Your task to perform on an android device: Check the news Image 0: 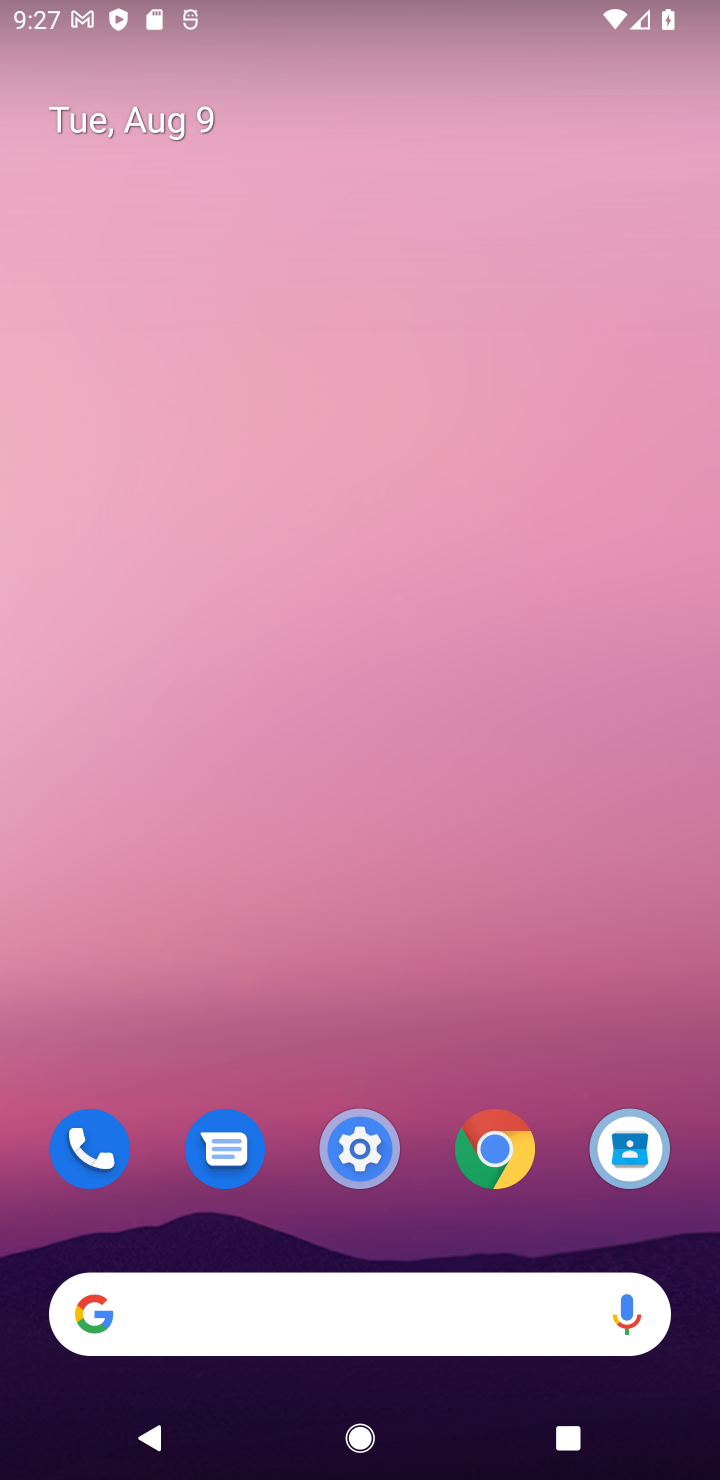
Step 0: click (339, 1312)
Your task to perform on an android device: Check the news Image 1: 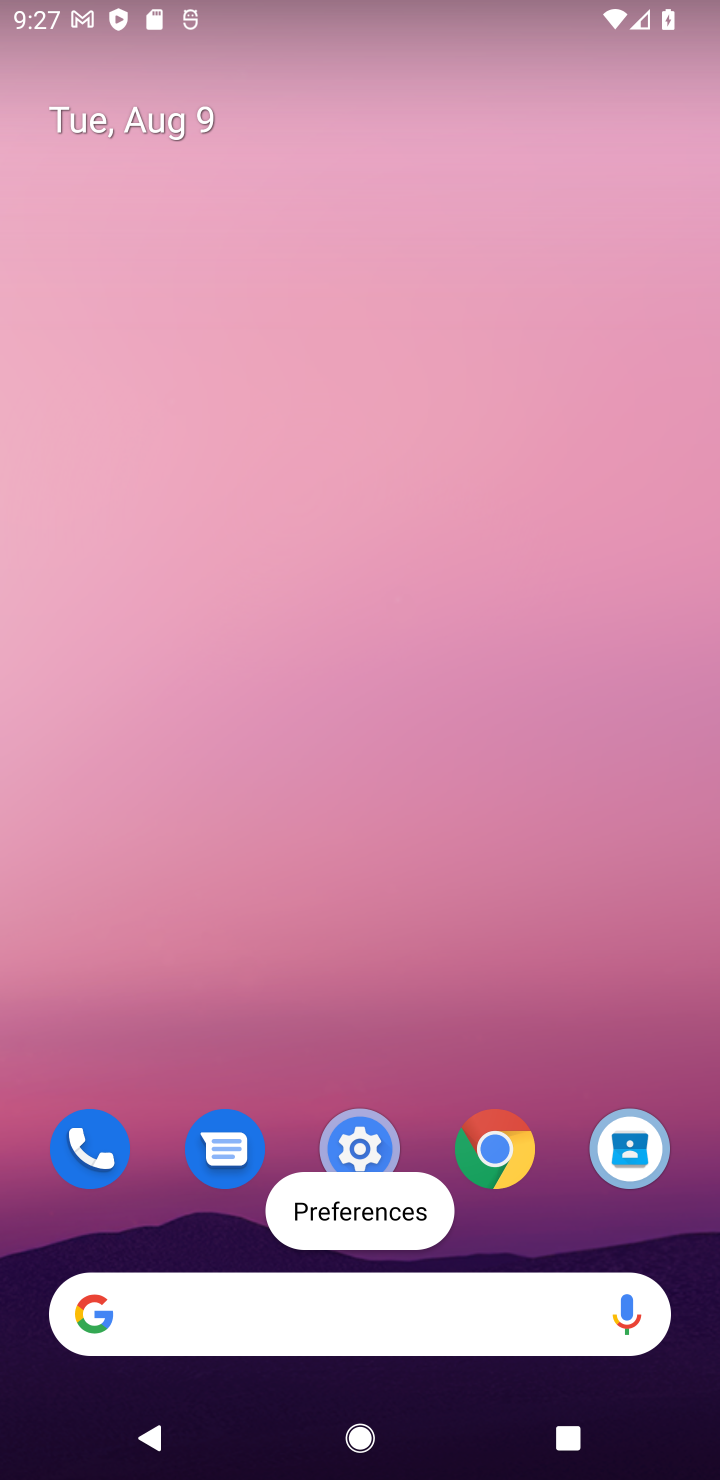
Step 1: click (304, 1304)
Your task to perform on an android device: Check the news Image 2: 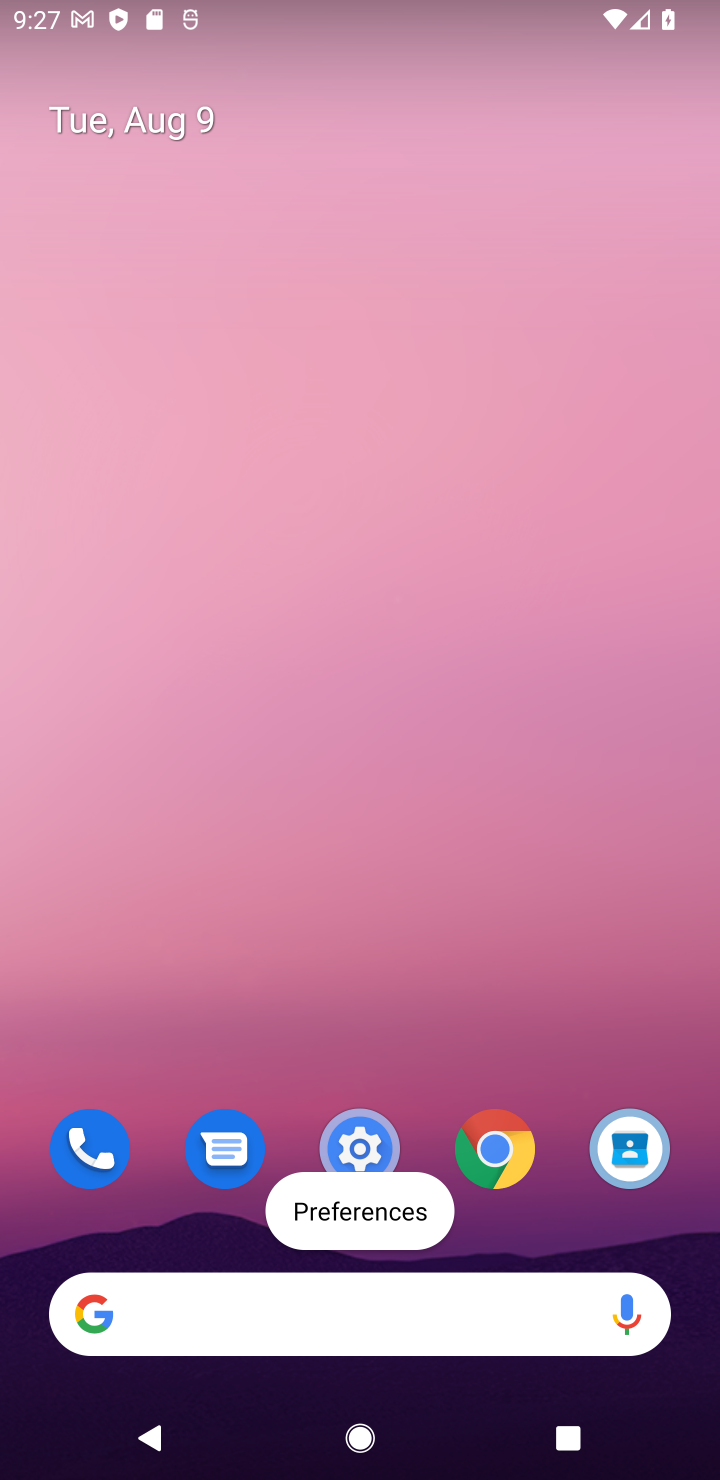
Step 2: click (326, 1313)
Your task to perform on an android device: Check the news Image 3: 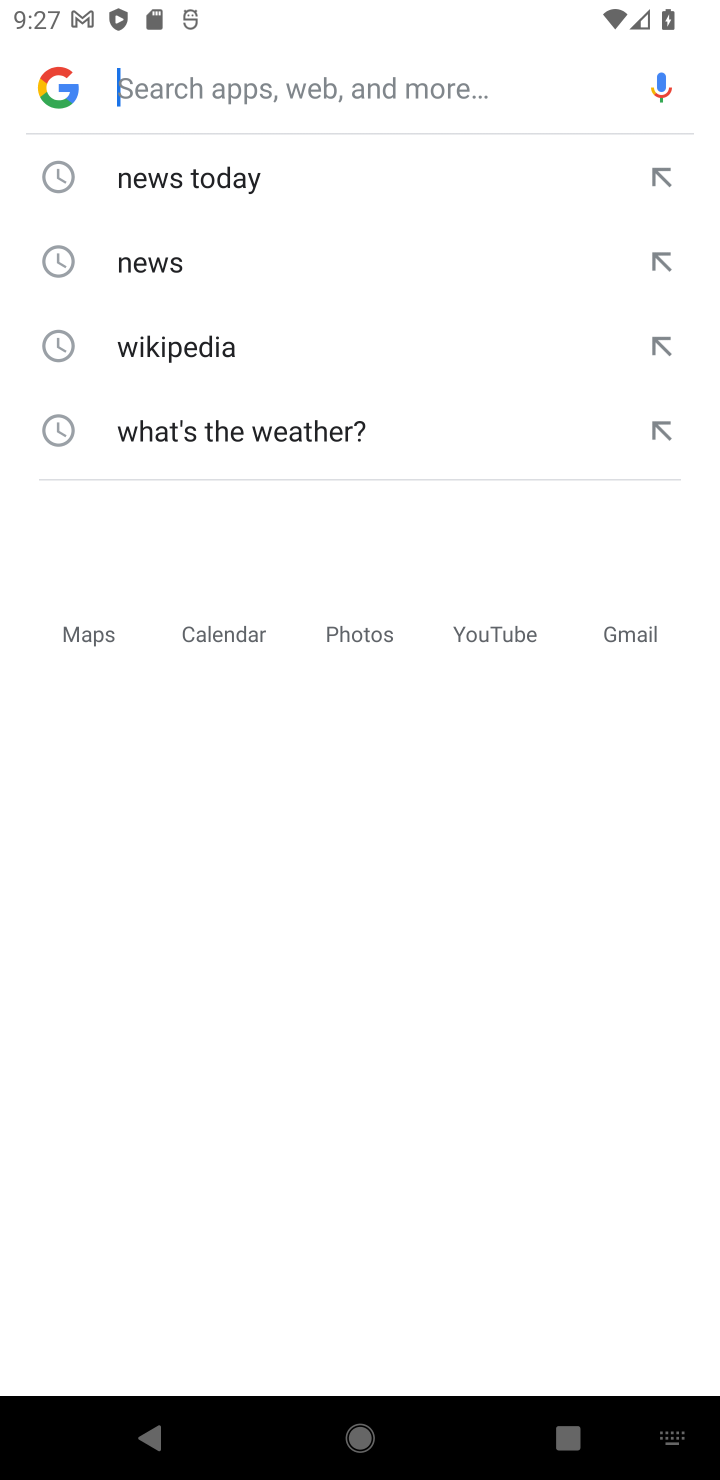
Step 3: click (177, 270)
Your task to perform on an android device: Check the news Image 4: 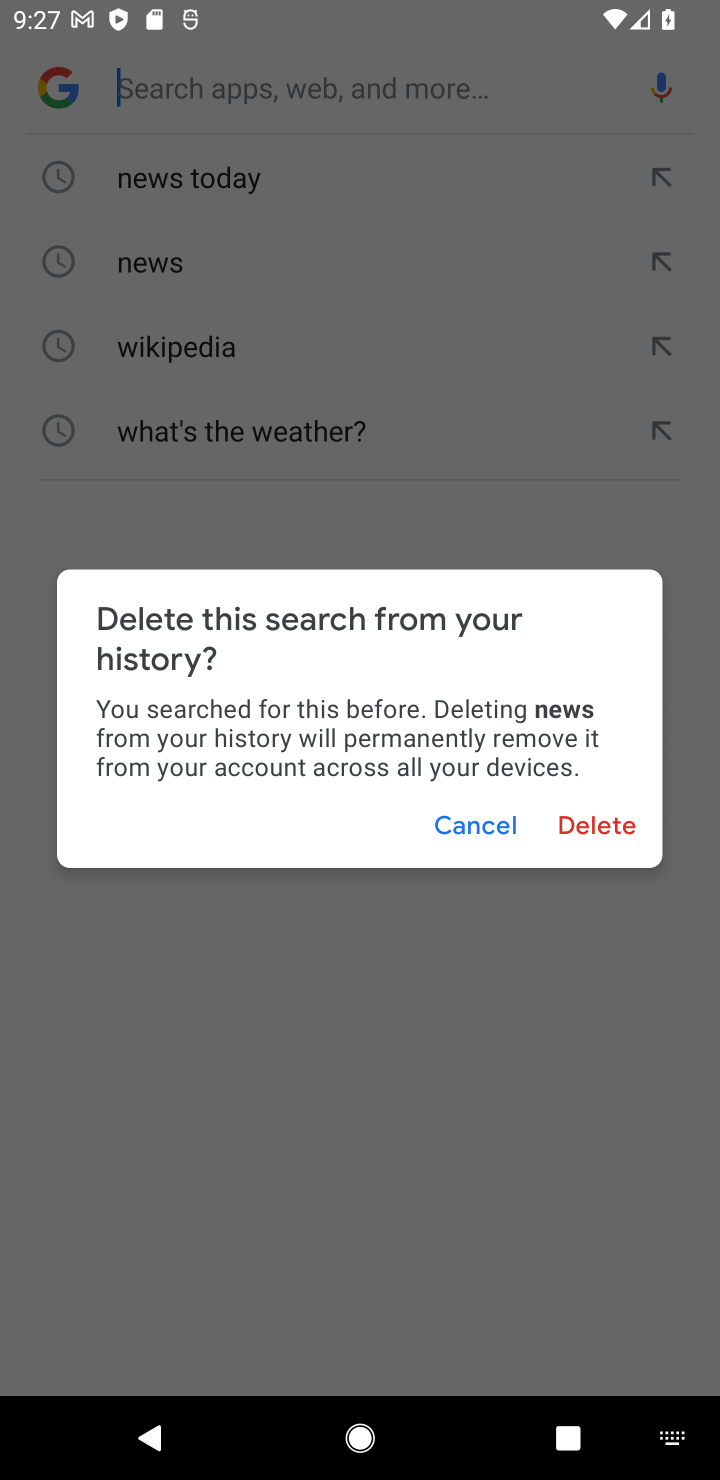
Step 4: click (478, 805)
Your task to perform on an android device: Check the news Image 5: 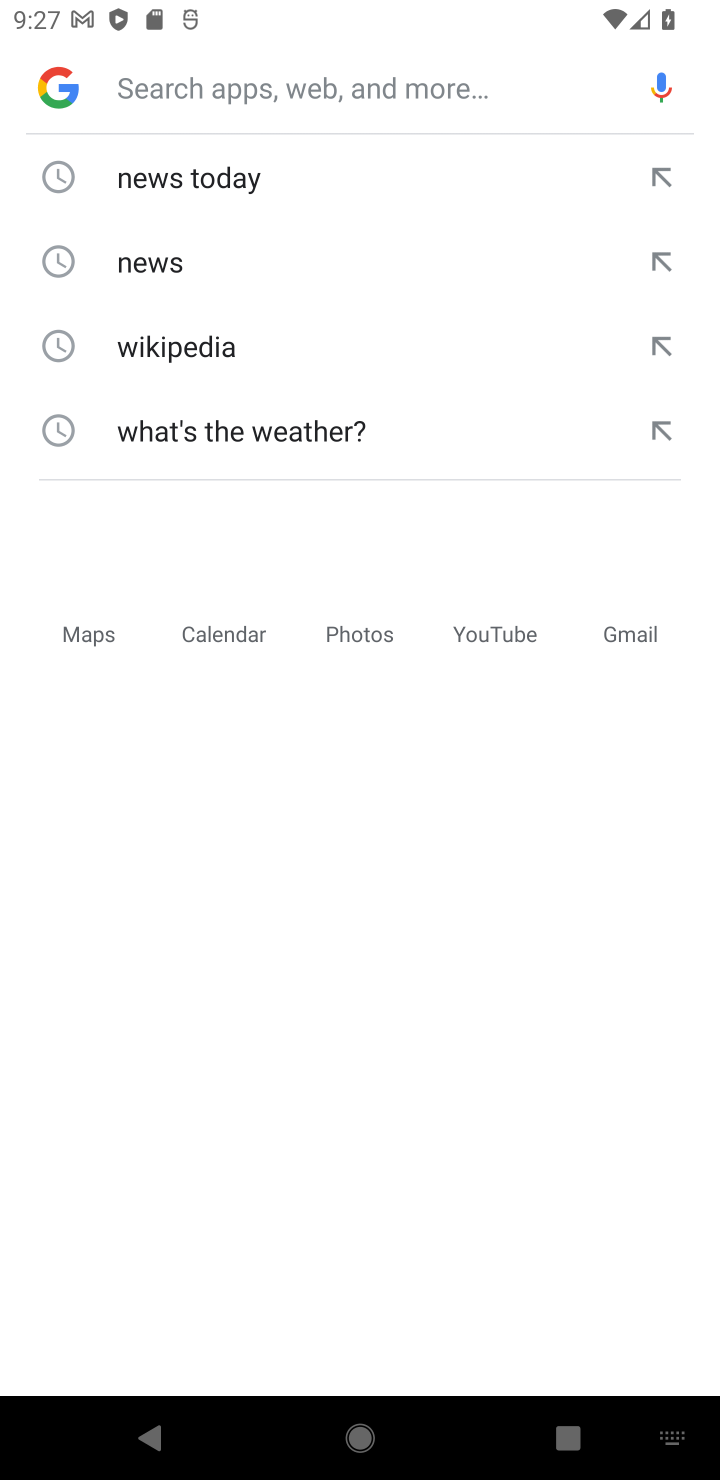
Step 5: click (138, 272)
Your task to perform on an android device: Check the news Image 6: 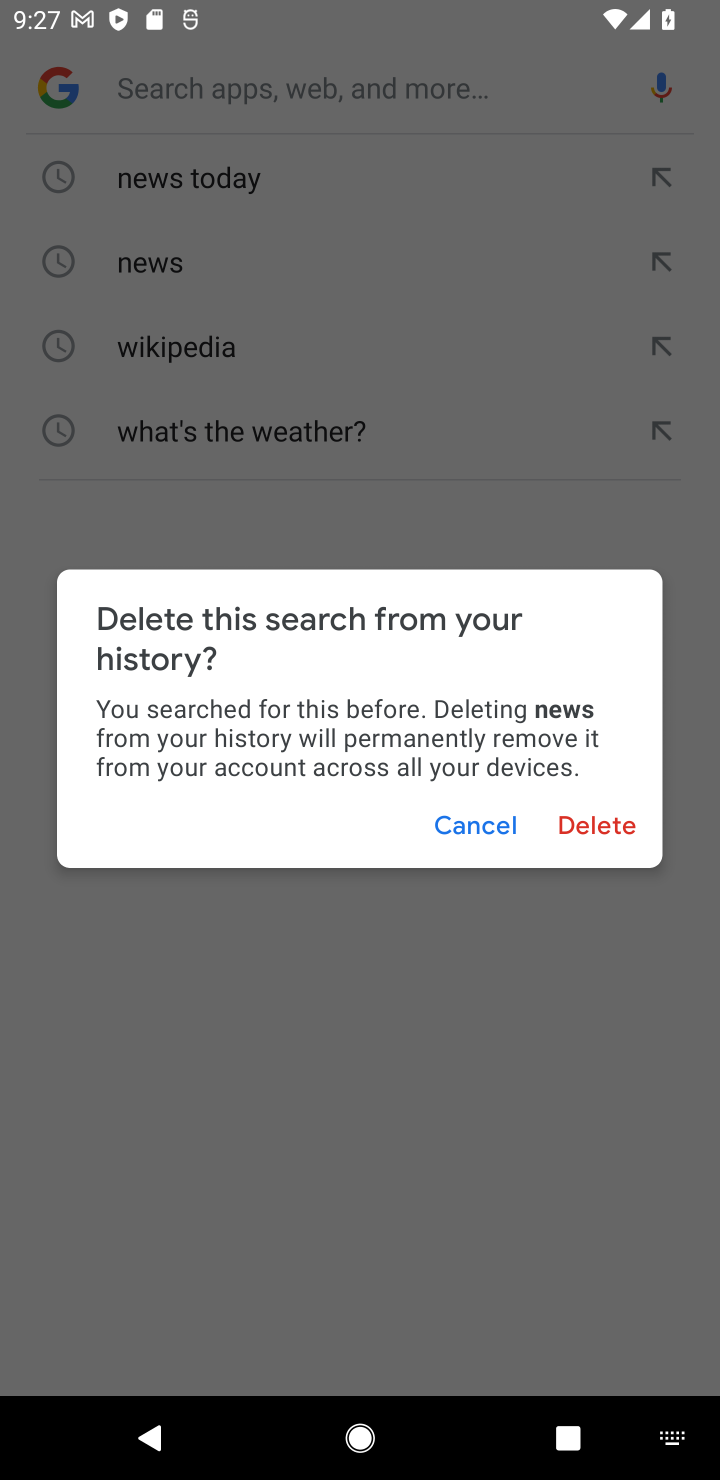
Step 6: click (483, 822)
Your task to perform on an android device: Check the news Image 7: 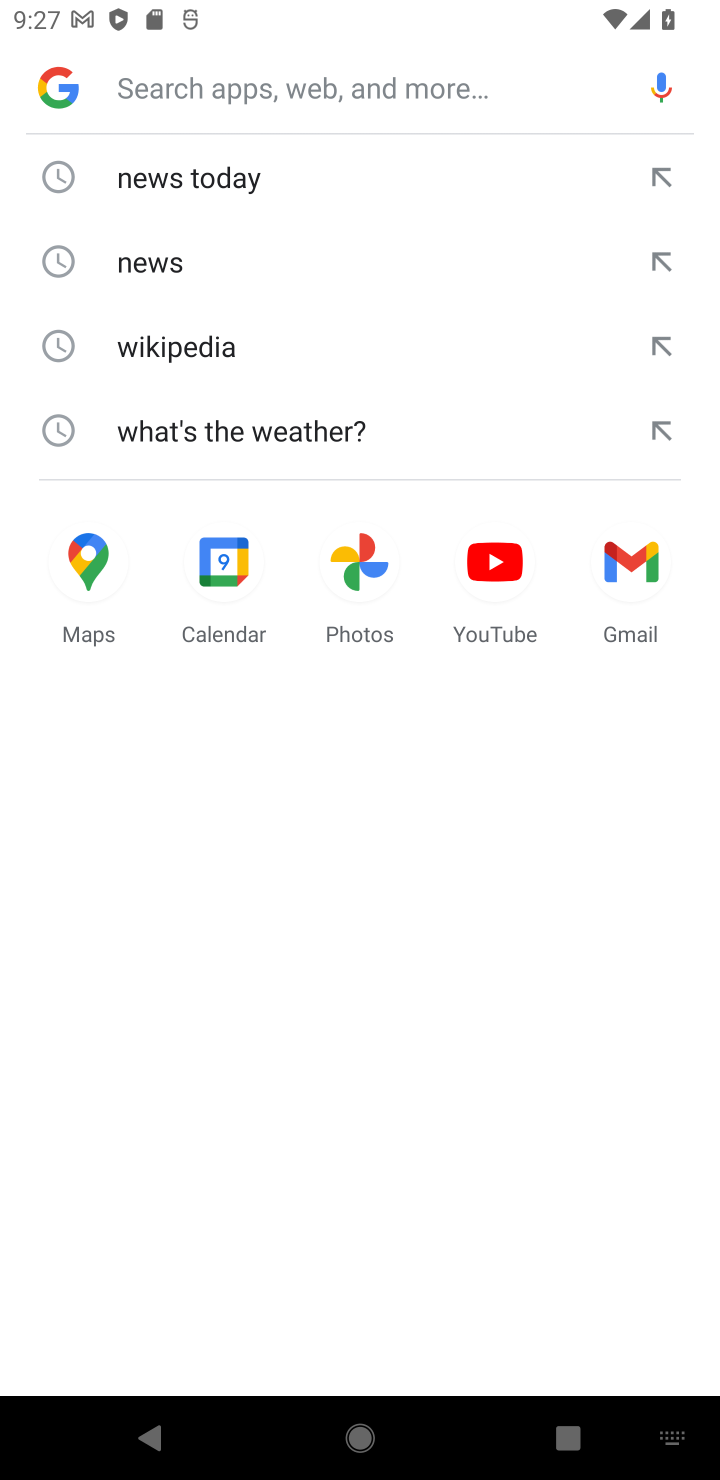
Step 7: click (233, 264)
Your task to perform on an android device: Check the news Image 8: 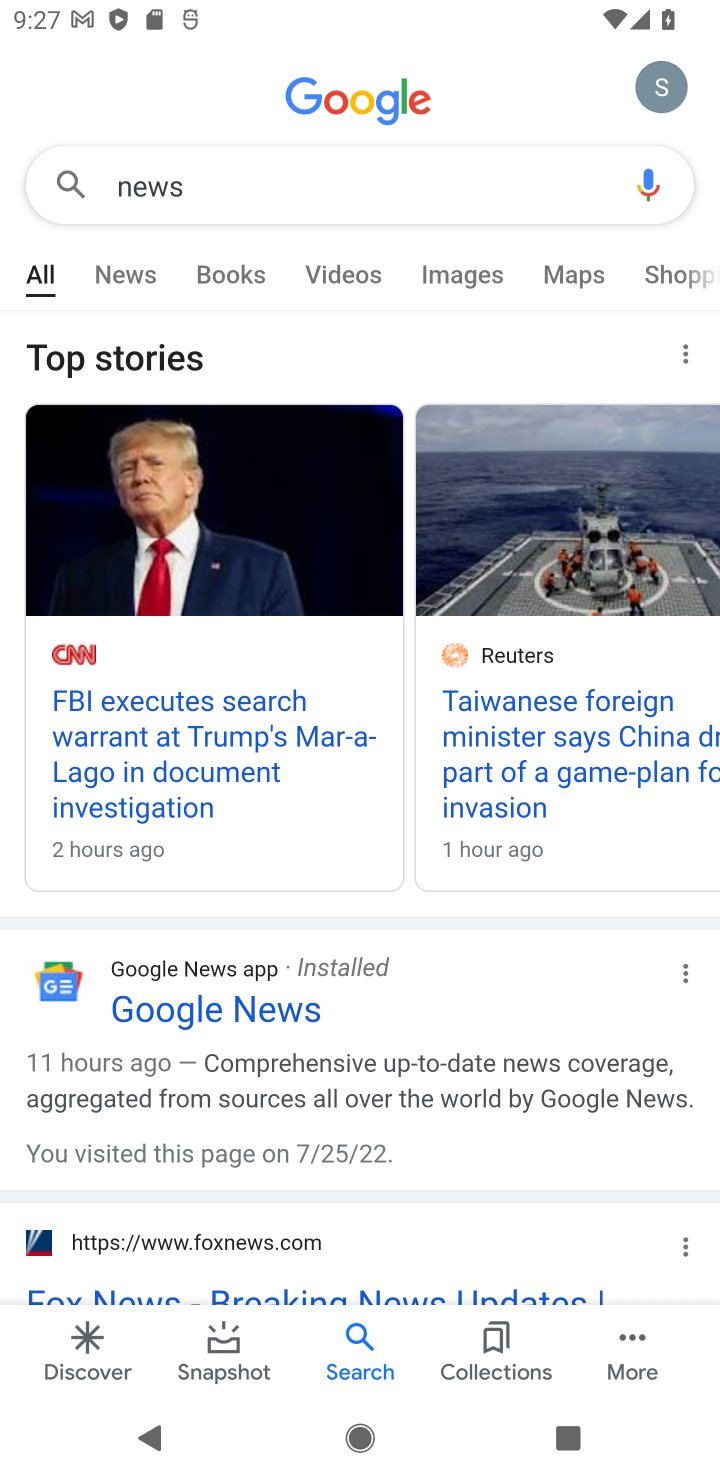
Step 8: task complete